Your task to perform on an android device: Clear all items from cart on amazon.com. Add "macbook" to the cart on amazon.com Image 0: 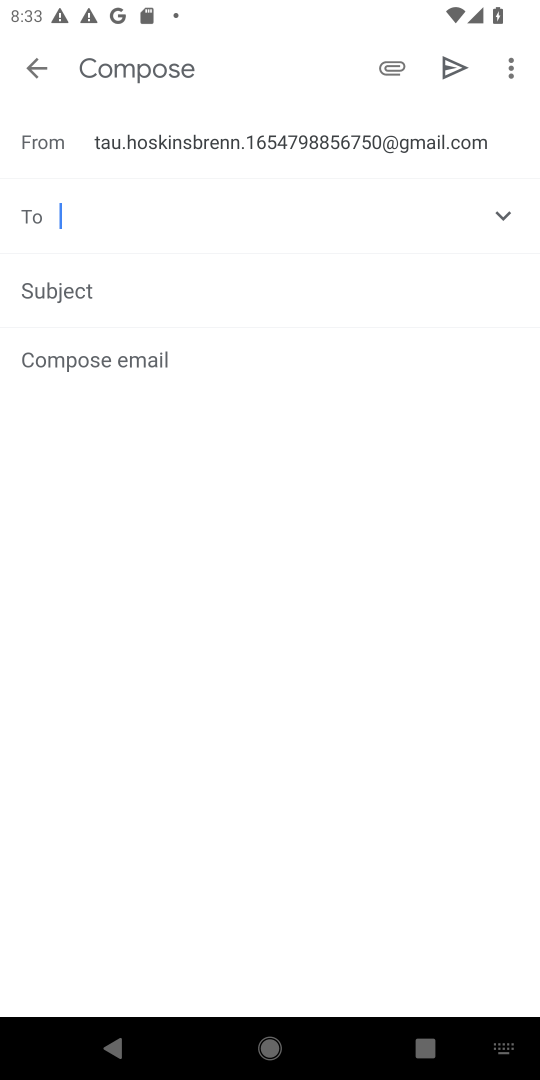
Step 0: press home button
Your task to perform on an android device: Clear all items from cart on amazon.com. Add "macbook" to the cart on amazon.com Image 1: 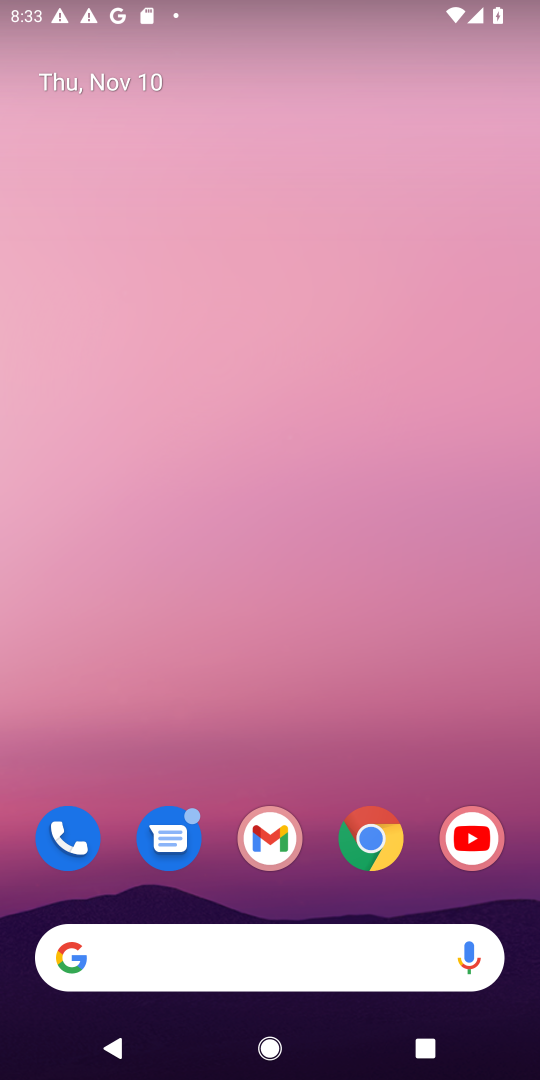
Step 1: drag from (302, 915) to (347, 172)
Your task to perform on an android device: Clear all items from cart on amazon.com. Add "macbook" to the cart on amazon.com Image 2: 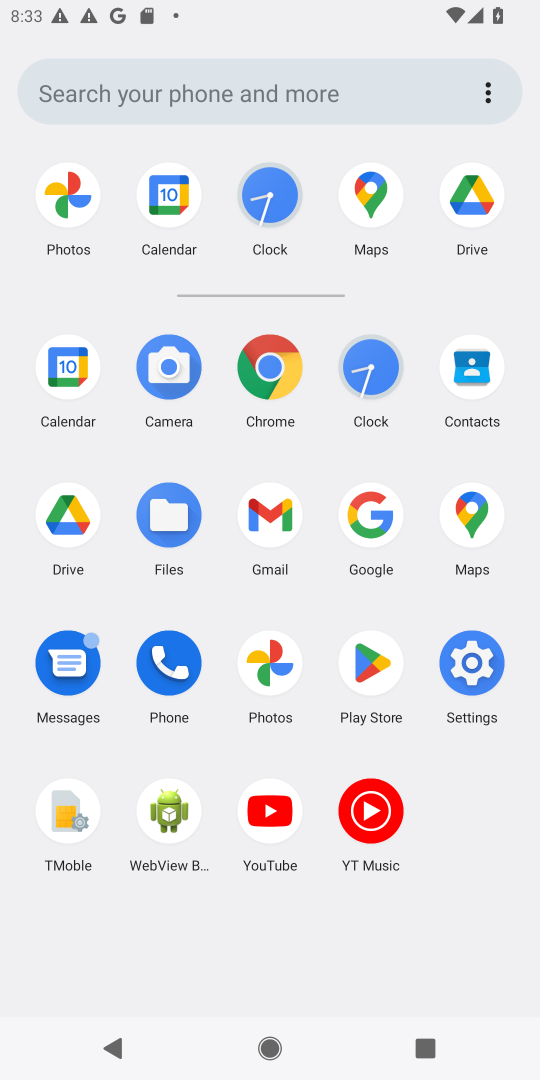
Step 2: click (280, 356)
Your task to perform on an android device: Clear all items from cart on amazon.com. Add "macbook" to the cart on amazon.com Image 3: 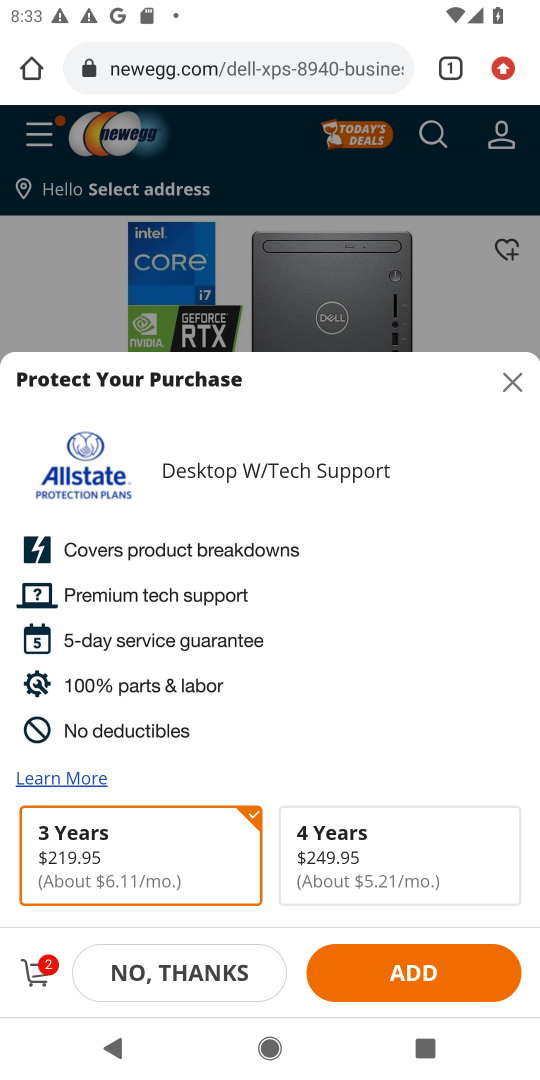
Step 3: click (245, 45)
Your task to perform on an android device: Clear all items from cart on amazon.com. Add "macbook" to the cart on amazon.com Image 4: 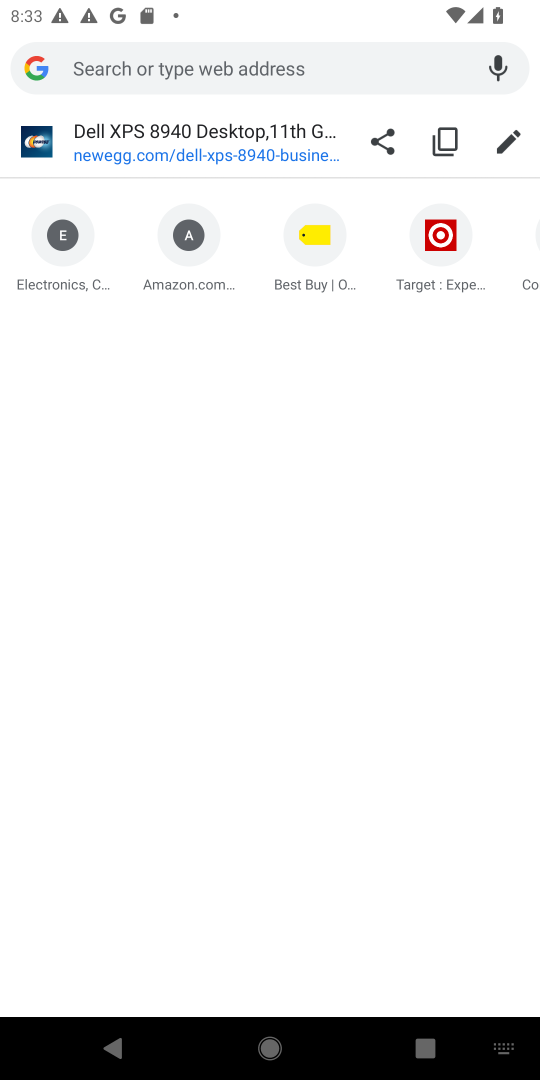
Step 4: type "amazon.com"
Your task to perform on an android device: Clear all items from cart on amazon.com. Add "macbook" to the cart on amazon.com Image 5: 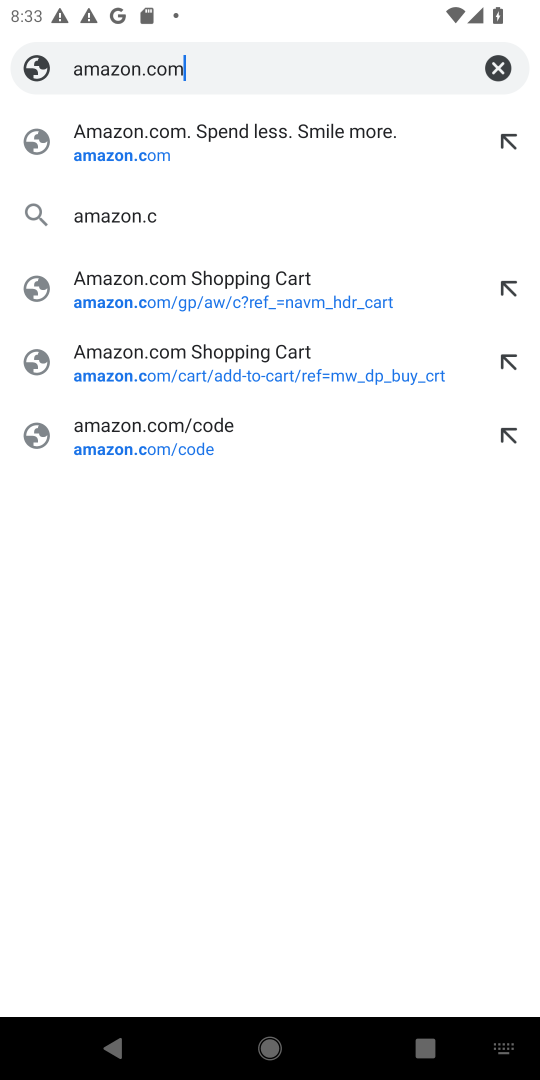
Step 5: press enter
Your task to perform on an android device: Clear all items from cart on amazon.com. Add "macbook" to the cart on amazon.com Image 6: 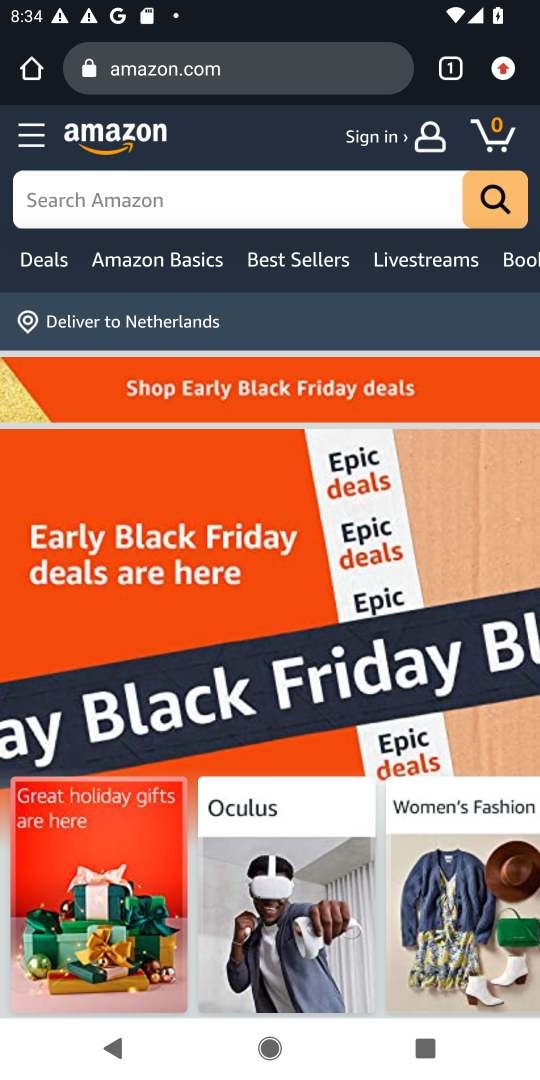
Step 6: click (499, 144)
Your task to perform on an android device: Clear all items from cart on amazon.com. Add "macbook" to the cart on amazon.com Image 7: 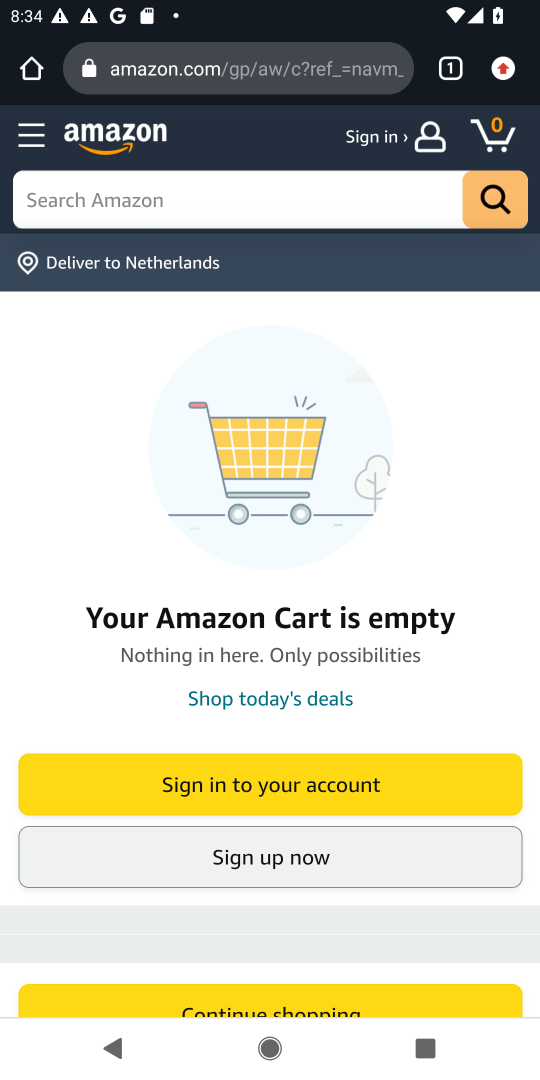
Step 7: click (261, 199)
Your task to perform on an android device: Clear all items from cart on amazon.com. Add "macbook" to the cart on amazon.com Image 8: 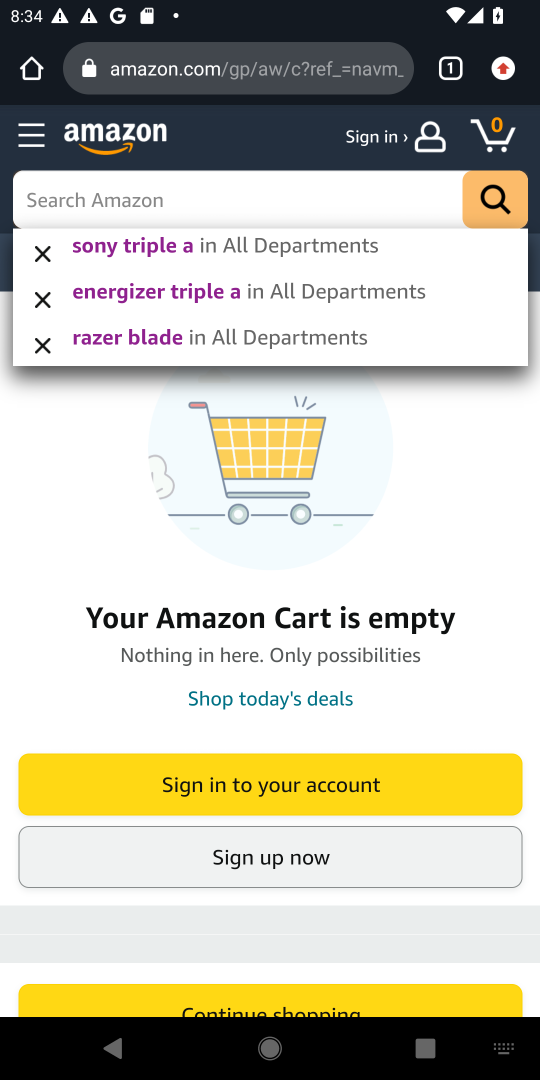
Step 8: type "macbook"
Your task to perform on an android device: Clear all items from cart on amazon.com. Add "macbook" to the cart on amazon.com Image 9: 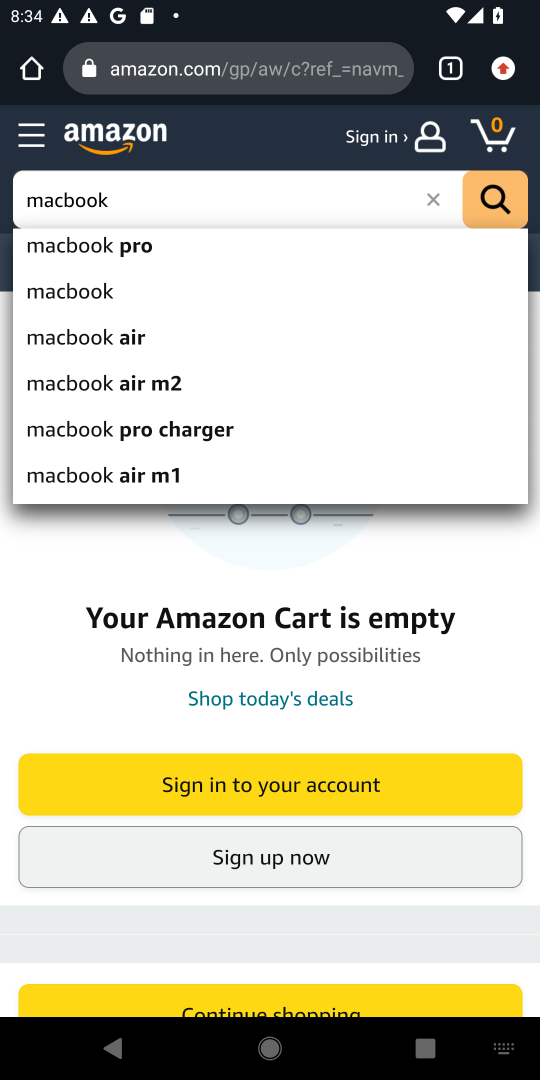
Step 9: press enter
Your task to perform on an android device: Clear all items from cart on amazon.com. Add "macbook" to the cart on amazon.com Image 10: 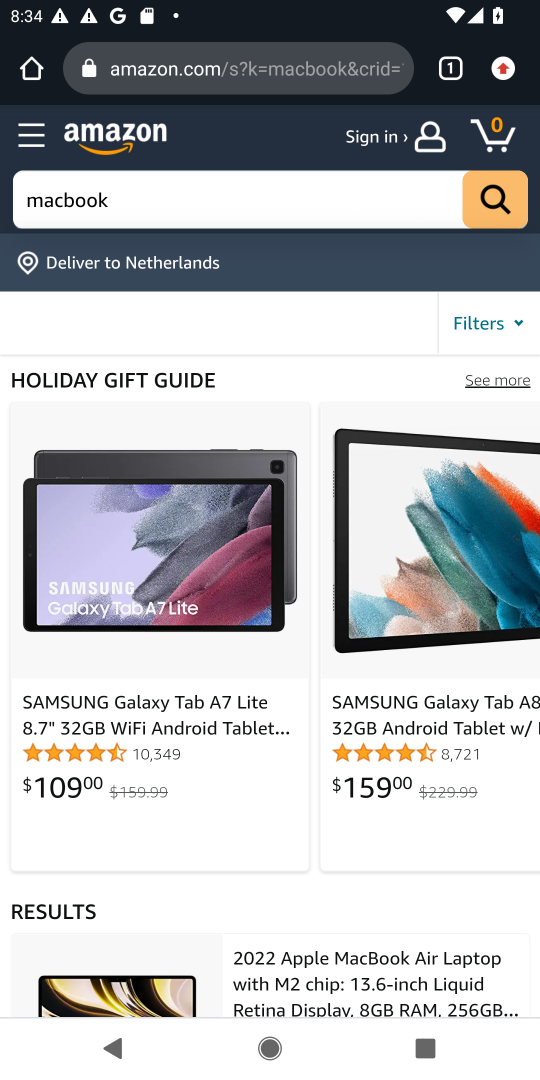
Step 10: drag from (310, 977) to (362, 505)
Your task to perform on an android device: Clear all items from cart on amazon.com. Add "macbook" to the cart on amazon.com Image 11: 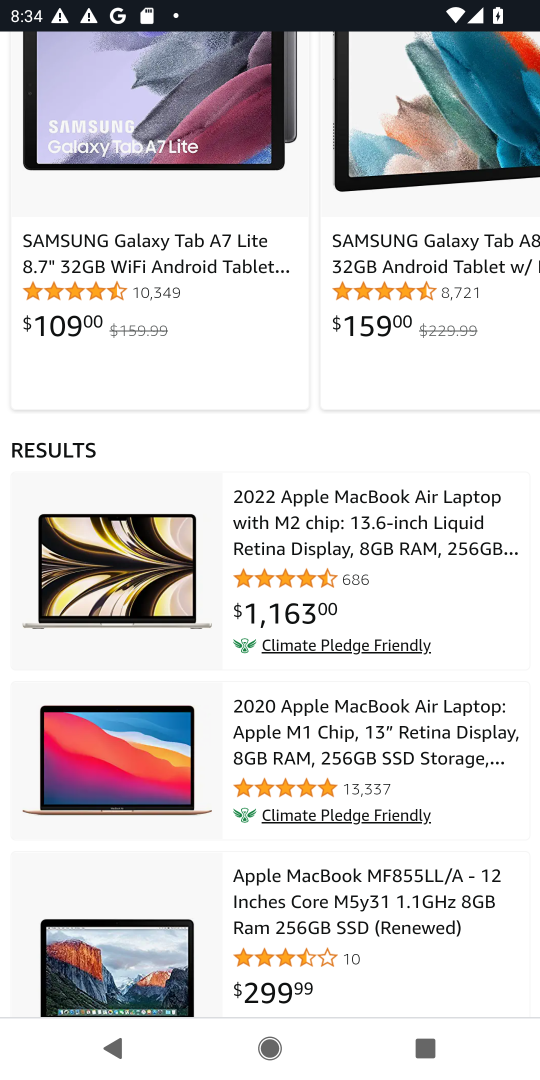
Step 11: click (408, 505)
Your task to perform on an android device: Clear all items from cart on amazon.com. Add "macbook" to the cart on amazon.com Image 12: 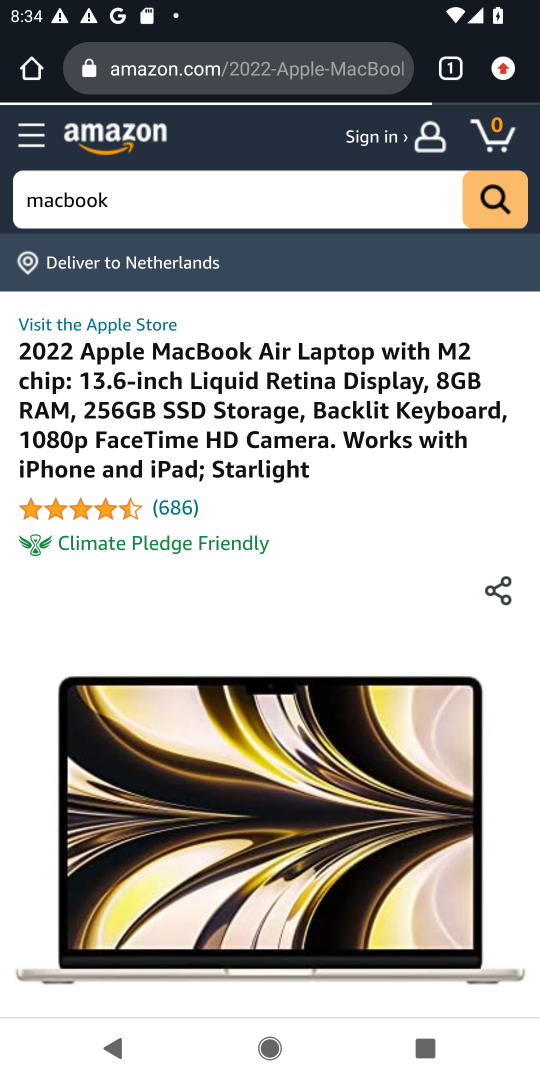
Step 12: task complete